Your task to perform on an android device: open a bookmark in the chrome app Image 0: 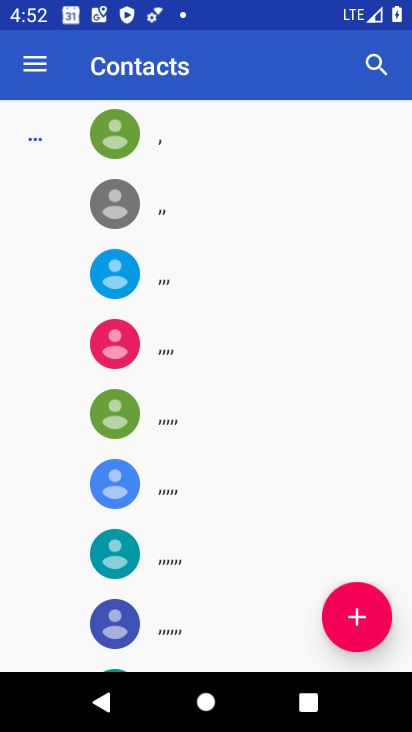
Step 0: press back button
Your task to perform on an android device: open a bookmark in the chrome app Image 1: 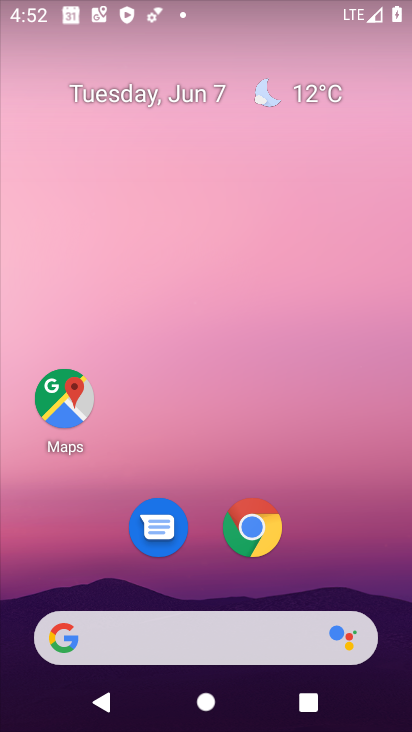
Step 1: click (254, 527)
Your task to perform on an android device: open a bookmark in the chrome app Image 2: 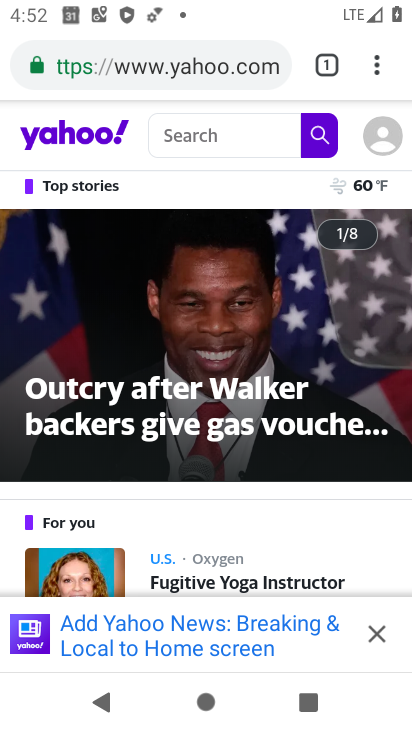
Step 2: click (375, 58)
Your task to perform on an android device: open a bookmark in the chrome app Image 3: 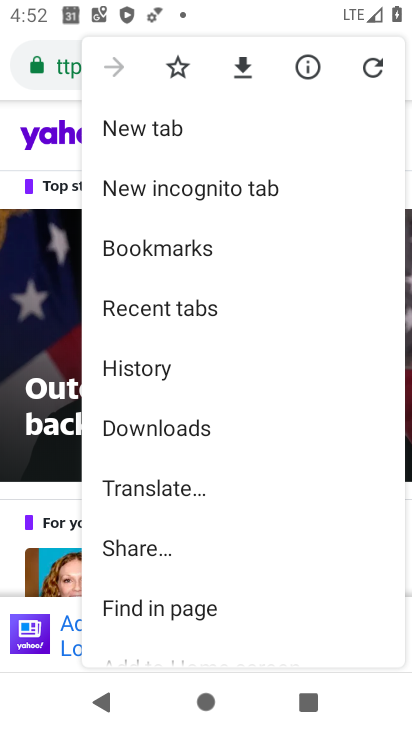
Step 3: click (196, 243)
Your task to perform on an android device: open a bookmark in the chrome app Image 4: 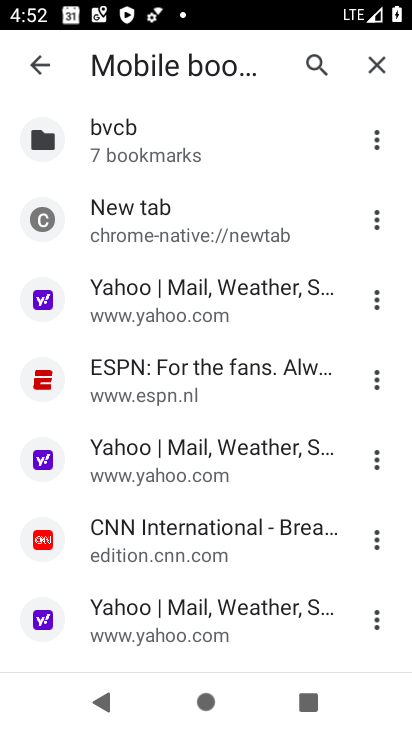
Step 4: task complete